Your task to perform on an android device: turn on sleep mode Image 0: 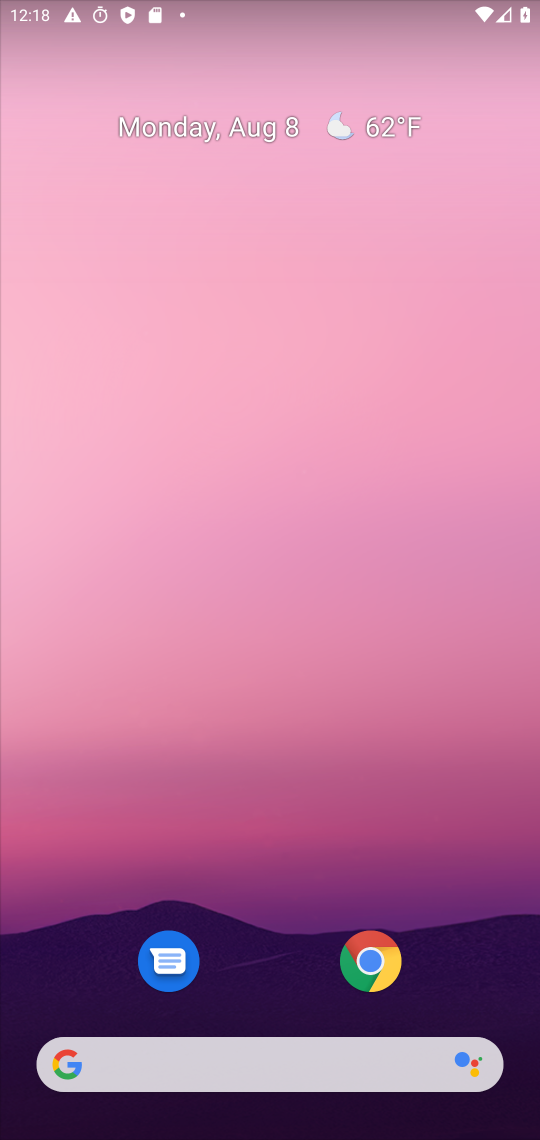
Step 0: drag from (414, 1082) to (372, 51)
Your task to perform on an android device: turn on sleep mode Image 1: 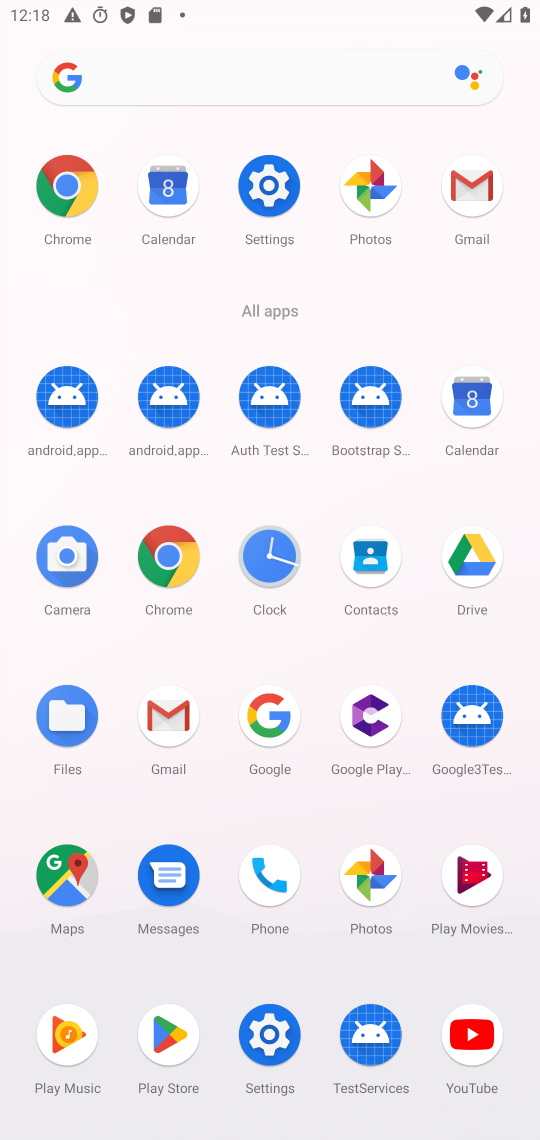
Step 1: click (275, 194)
Your task to perform on an android device: turn on sleep mode Image 2: 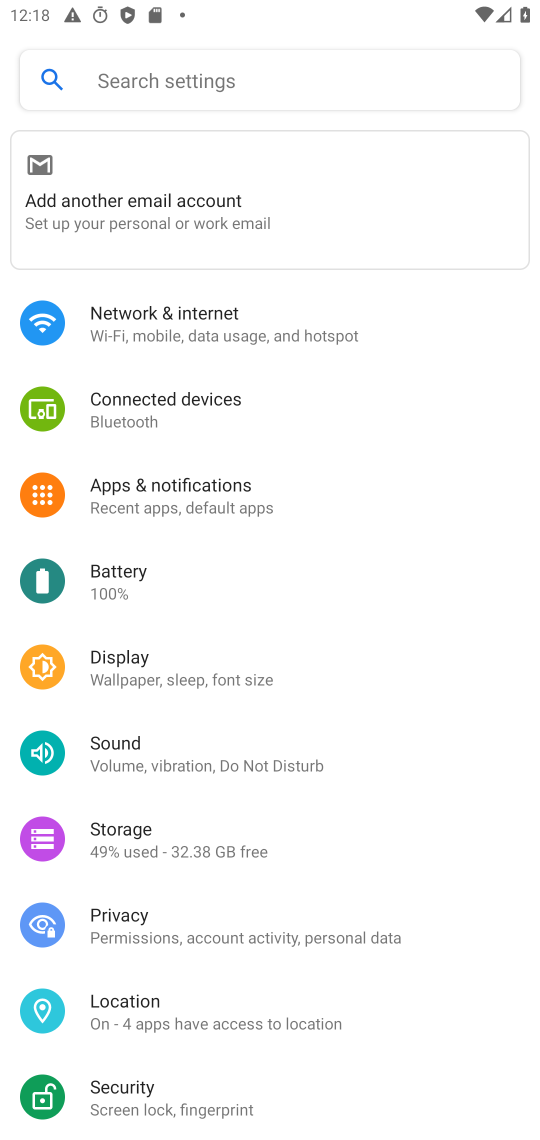
Step 2: click (154, 675)
Your task to perform on an android device: turn on sleep mode Image 3: 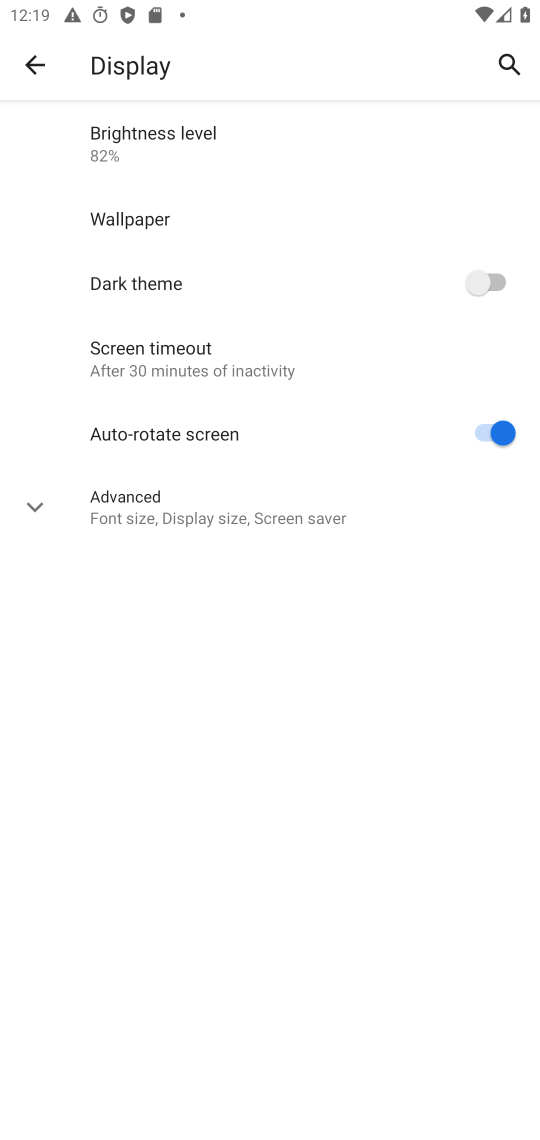
Step 3: task complete